Your task to perform on an android device: turn on wifi Image 0: 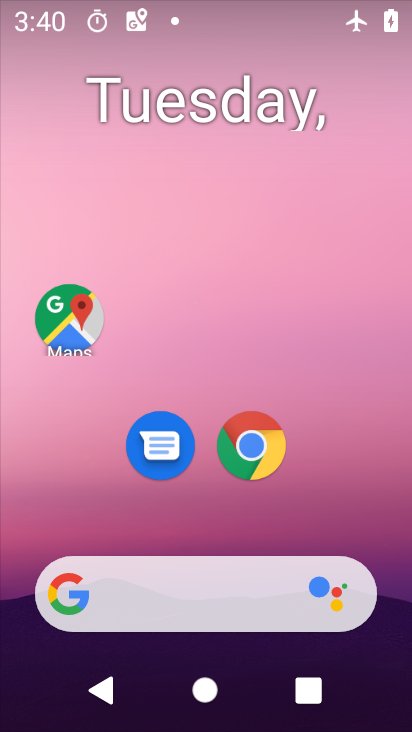
Step 0: drag from (212, 538) to (232, 105)
Your task to perform on an android device: turn on wifi Image 1: 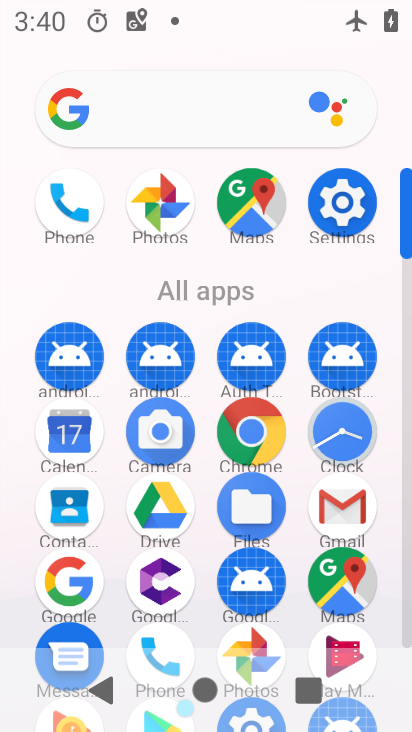
Step 1: click (336, 203)
Your task to perform on an android device: turn on wifi Image 2: 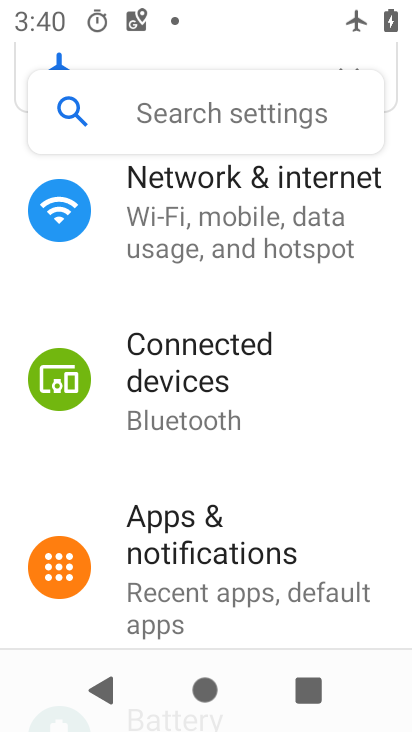
Step 2: click (323, 195)
Your task to perform on an android device: turn on wifi Image 3: 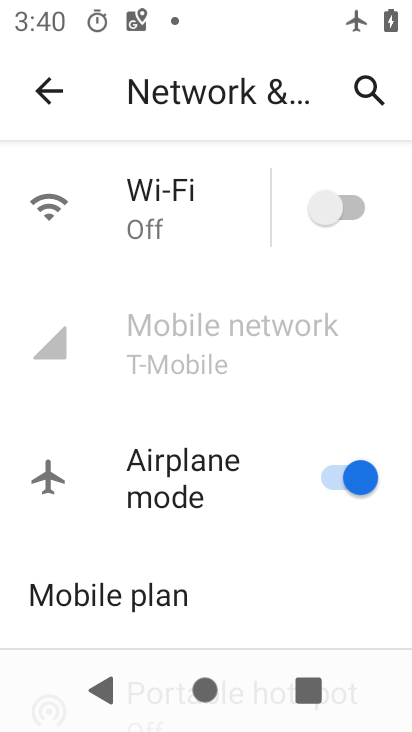
Step 3: click (315, 209)
Your task to perform on an android device: turn on wifi Image 4: 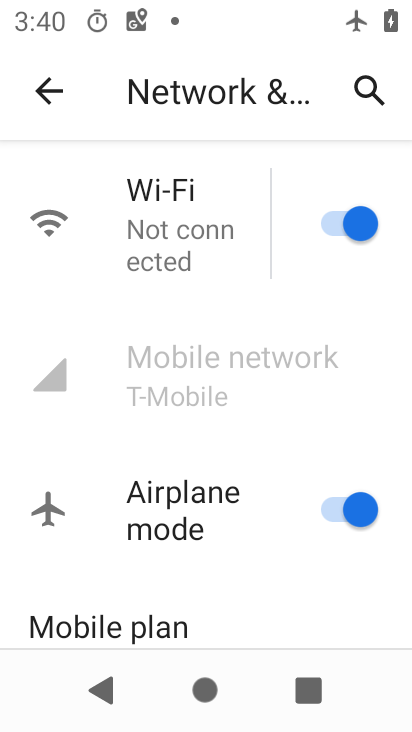
Step 4: task complete